Your task to perform on an android device: Go to notification settings Image 0: 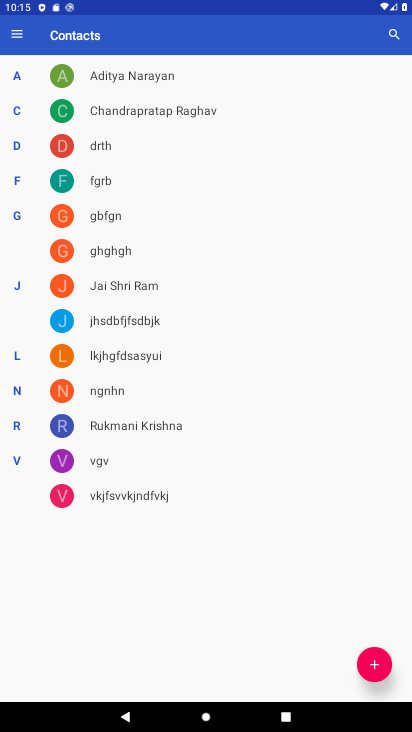
Step 0: drag from (186, 669) to (155, 384)
Your task to perform on an android device: Go to notification settings Image 1: 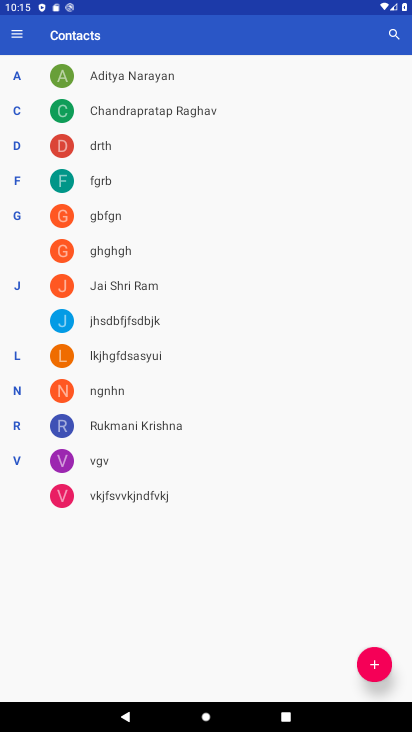
Step 1: press home button
Your task to perform on an android device: Go to notification settings Image 2: 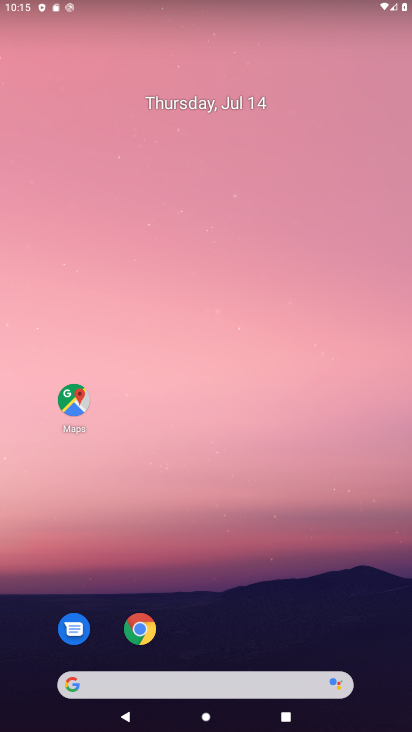
Step 2: drag from (181, 670) to (172, 328)
Your task to perform on an android device: Go to notification settings Image 3: 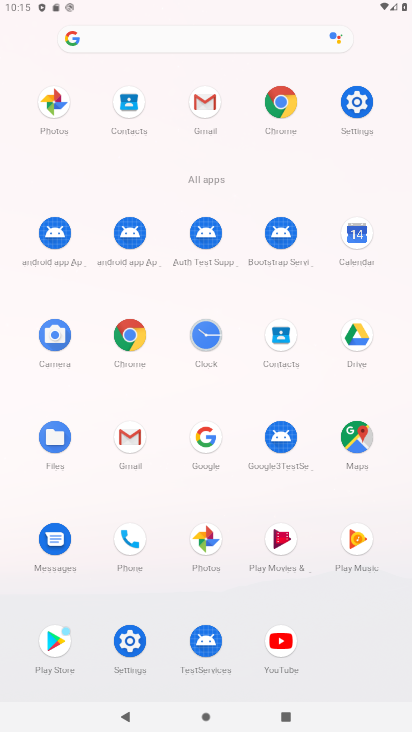
Step 3: click (357, 106)
Your task to perform on an android device: Go to notification settings Image 4: 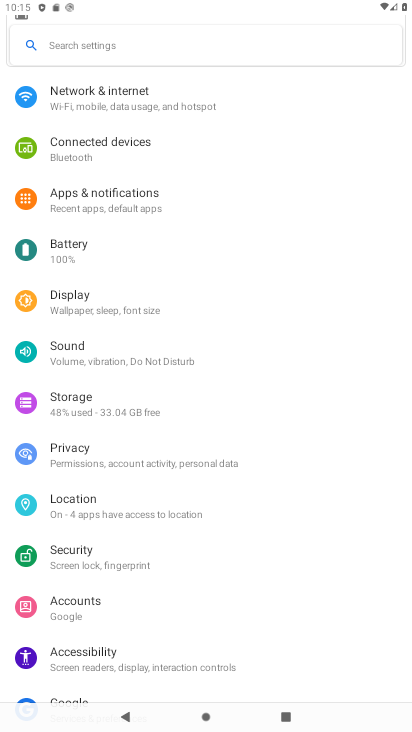
Step 4: click (90, 198)
Your task to perform on an android device: Go to notification settings Image 5: 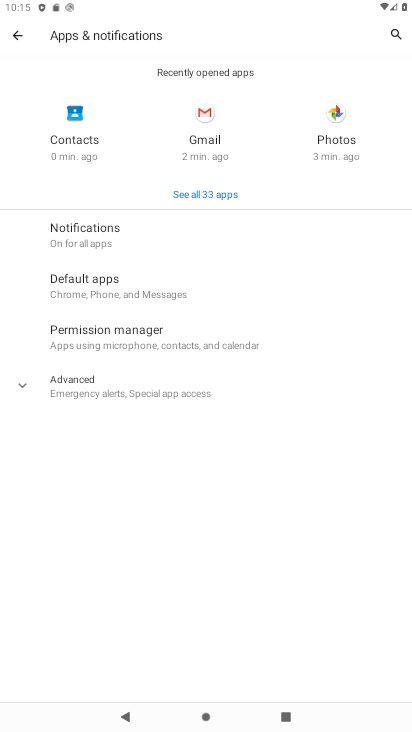
Step 5: click (100, 369)
Your task to perform on an android device: Go to notification settings Image 6: 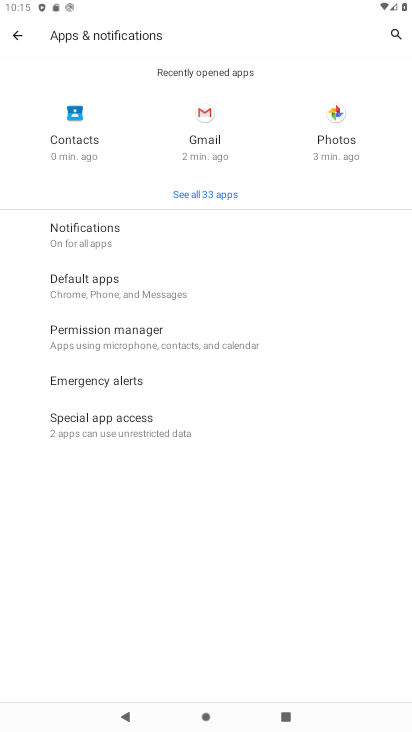
Step 6: task complete